Your task to perform on an android device: Go to eBay Image 0: 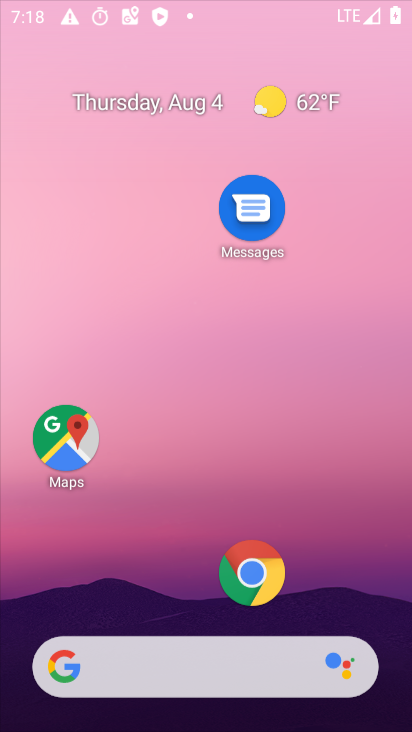
Step 0: press home button
Your task to perform on an android device: Go to eBay Image 1: 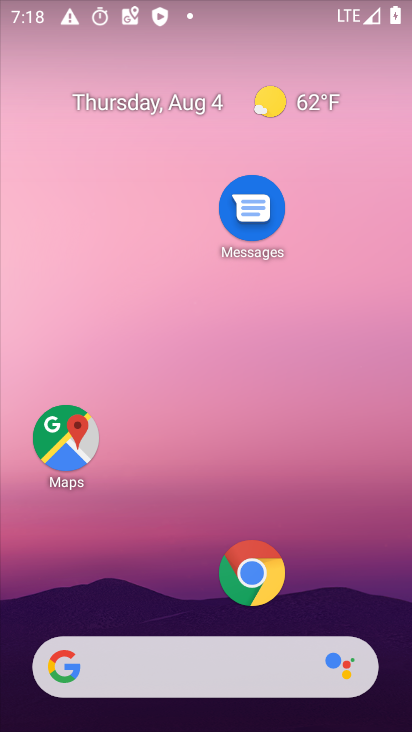
Step 1: click (68, 668)
Your task to perform on an android device: Go to eBay Image 2: 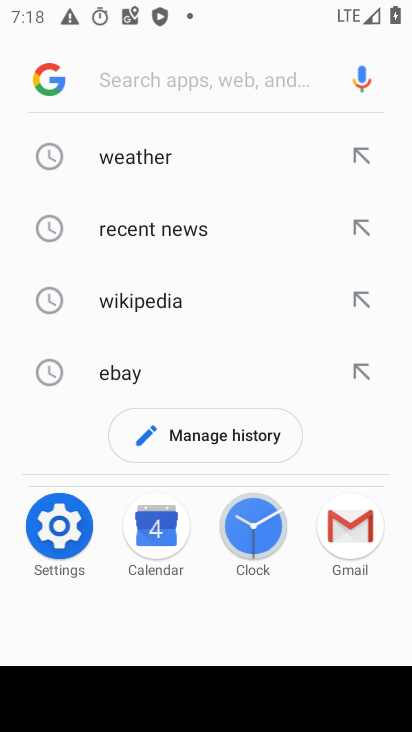
Step 2: click (125, 369)
Your task to perform on an android device: Go to eBay Image 3: 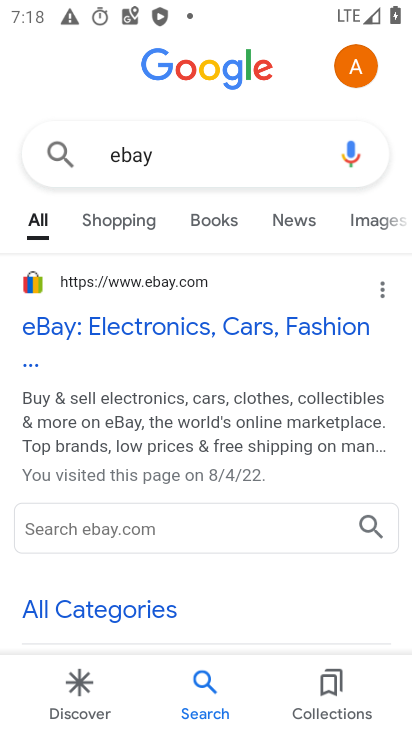
Step 3: click (127, 319)
Your task to perform on an android device: Go to eBay Image 4: 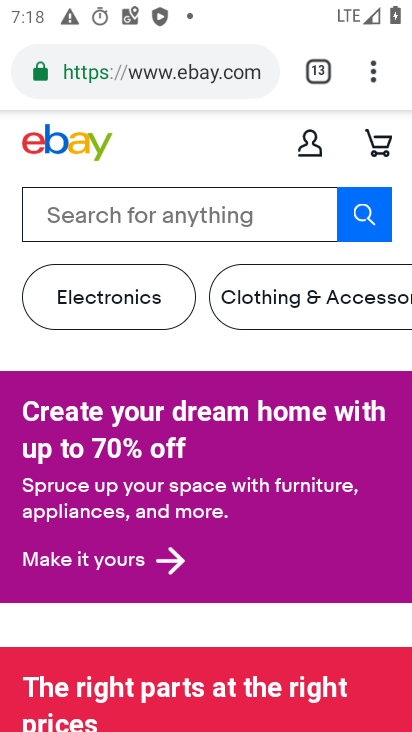
Step 4: task complete